Your task to perform on an android device: install app "Upside-Cash back on gas & food" Image 0: 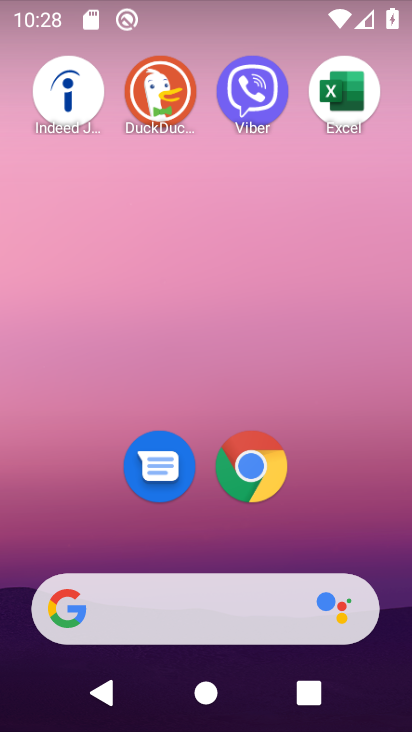
Step 0: drag from (222, 722) to (253, 106)
Your task to perform on an android device: install app "Upside-Cash back on gas & food" Image 1: 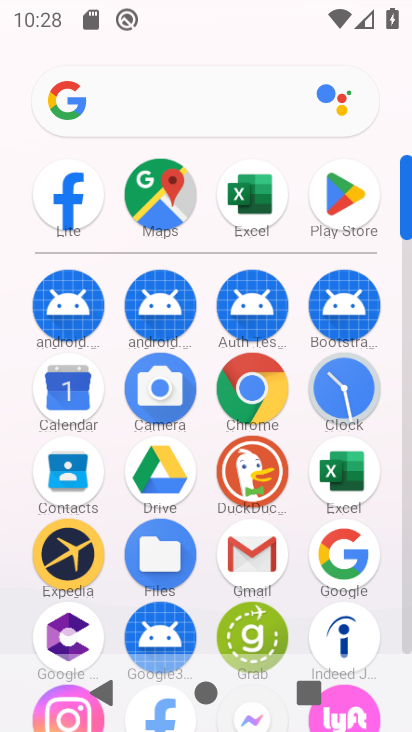
Step 1: click (352, 190)
Your task to perform on an android device: install app "Upside-Cash back on gas & food" Image 2: 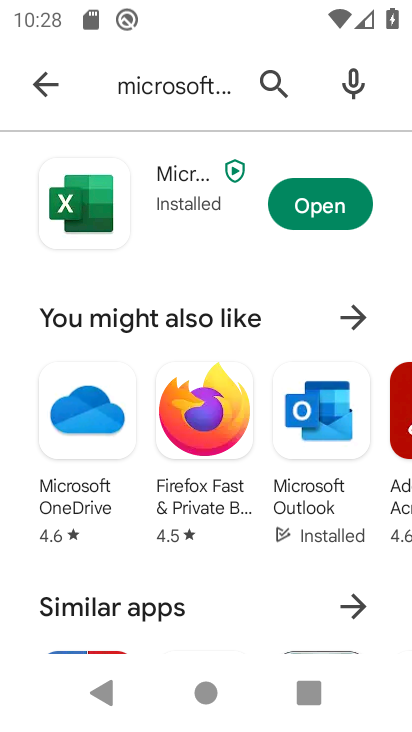
Step 2: click (271, 76)
Your task to perform on an android device: install app "Upside-Cash back on gas & food" Image 3: 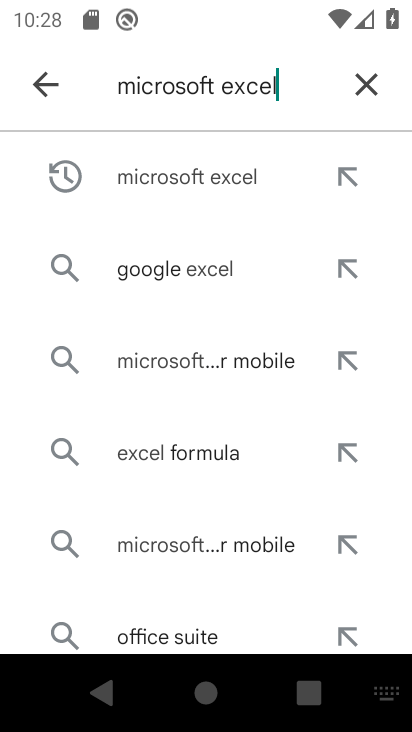
Step 3: click (195, 175)
Your task to perform on an android device: install app "Upside-Cash back on gas & food" Image 4: 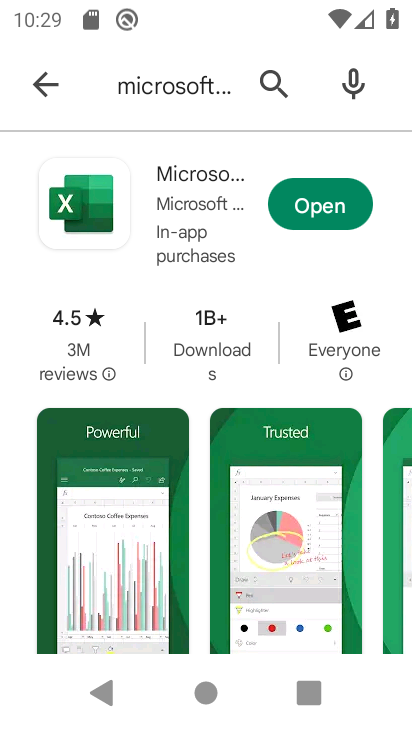
Step 4: click (270, 86)
Your task to perform on an android device: install app "Upside-Cash back on gas & food" Image 5: 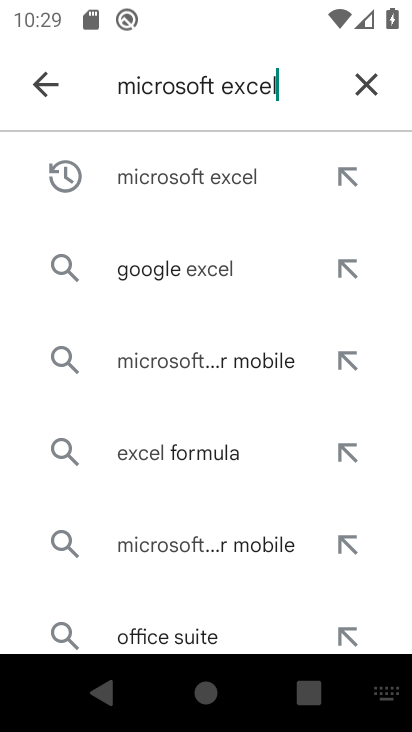
Step 5: click (365, 78)
Your task to perform on an android device: install app "Upside-Cash back on gas & food" Image 6: 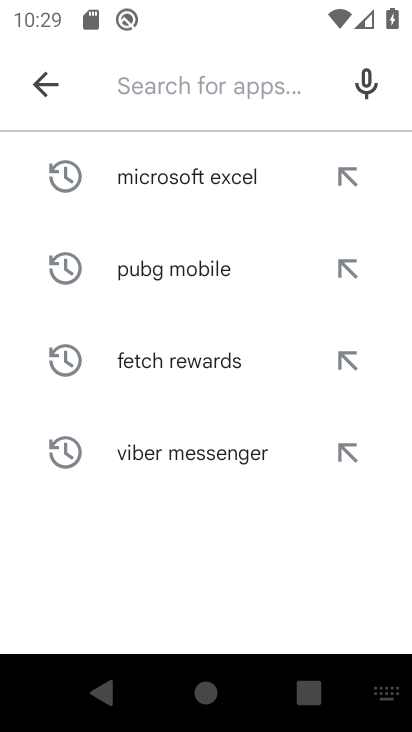
Step 6: type "Upside-Cash back on gas & food"
Your task to perform on an android device: install app "Upside-Cash back on gas & food" Image 7: 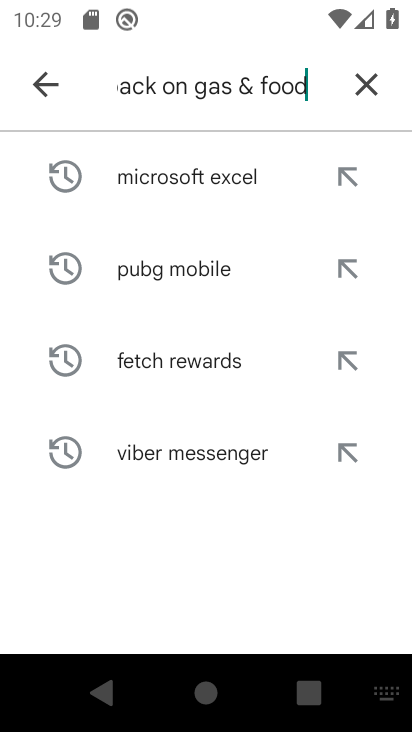
Step 7: type ""
Your task to perform on an android device: install app "Upside-Cash back on gas & food" Image 8: 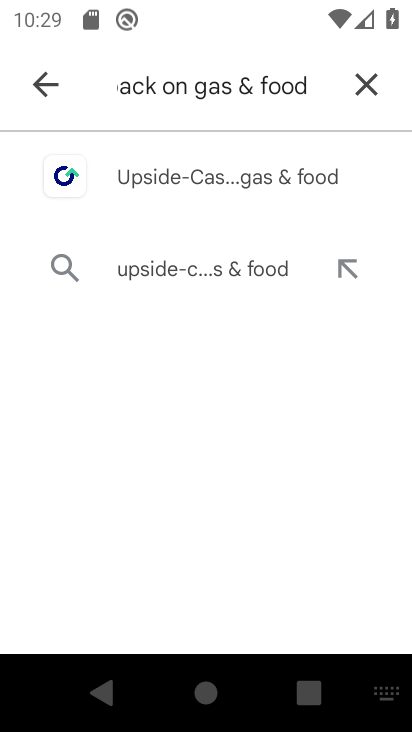
Step 8: click (260, 175)
Your task to perform on an android device: install app "Upside-Cash back on gas & food" Image 9: 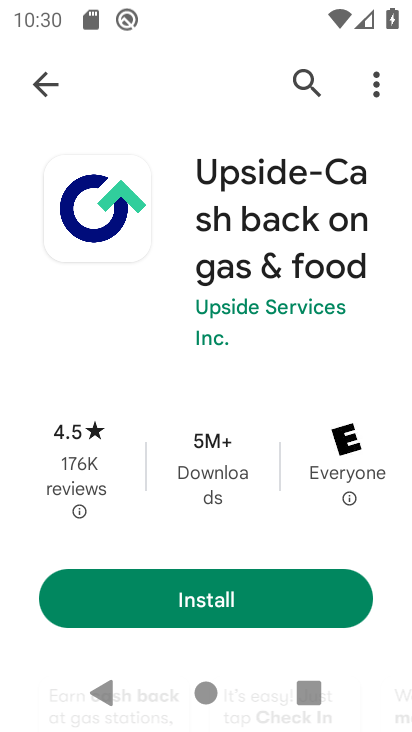
Step 9: click (278, 588)
Your task to perform on an android device: install app "Upside-Cash back on gas & food" Image 10: 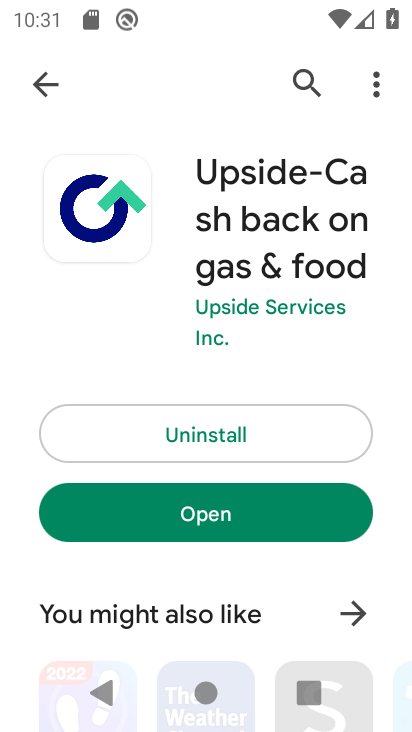
Step 10: task complete